Your task to perform on an android device: allow cookies in the chrome app Image 0: 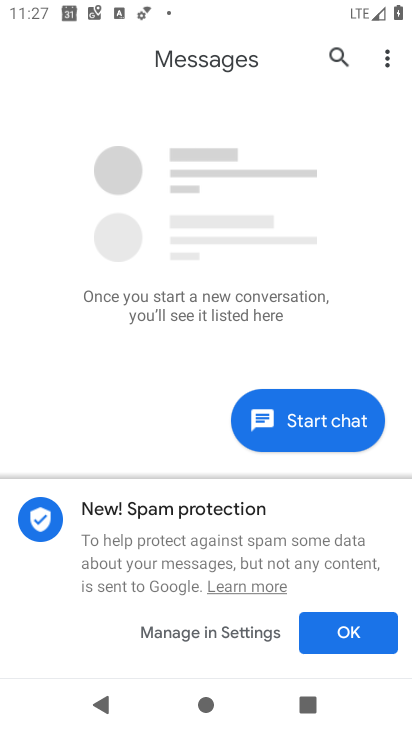
Step 0: press home button
Your task to perform on an android device: allow cookies in the chrome app Image 1: 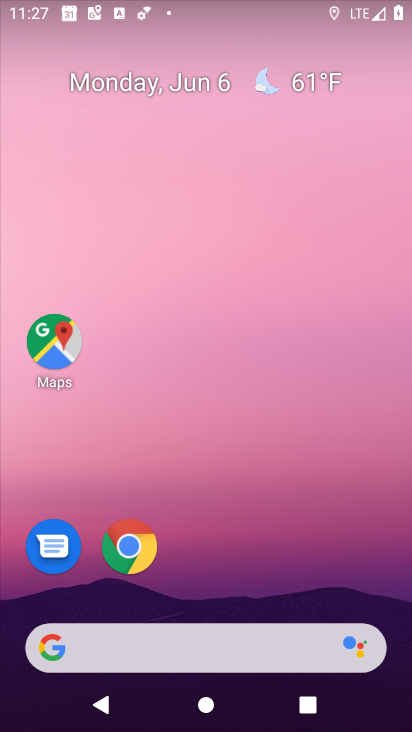
Step 1: click (132, 546)
Your task to perform on an android device: allow cookies in the chrome app Image 2: 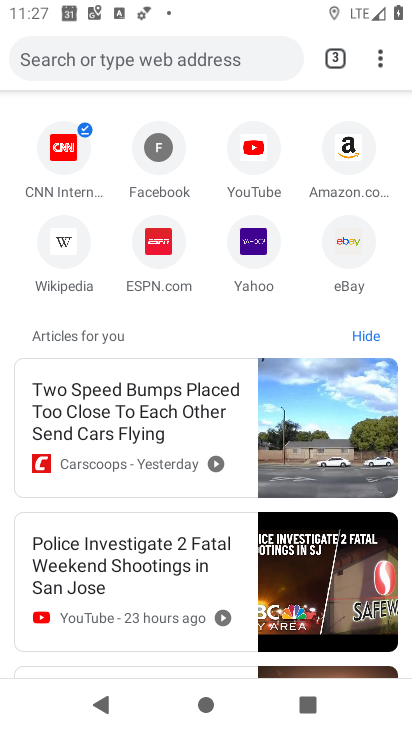
Step 2: click (376, 60)
Your task to perform on an android device: allow cookies in the chrome app Image 3: 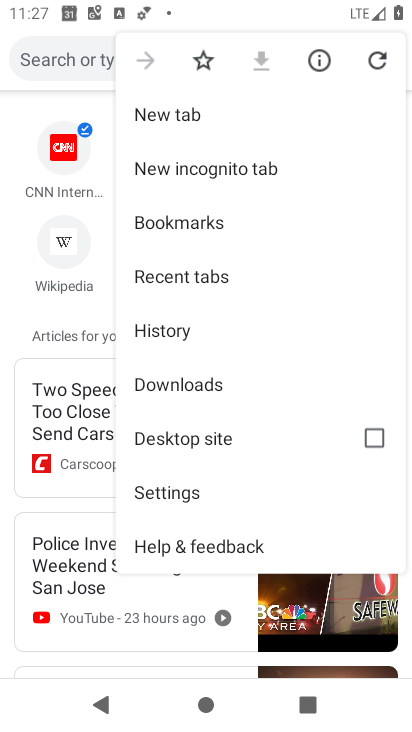
Step 3: click (191, 487)
Your task to perform on an android device: allow cookies in the chrome app Image 4: 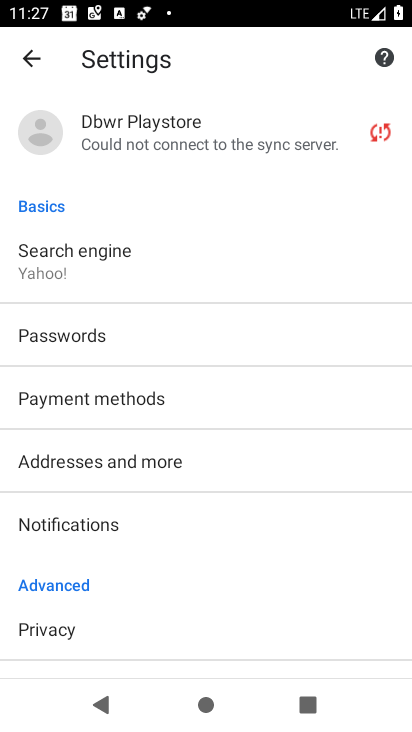
Step 4: drag from (214, 638) to (275, 167)
Your task to perform on an android device: allow cookies in the chrome app Image 5: 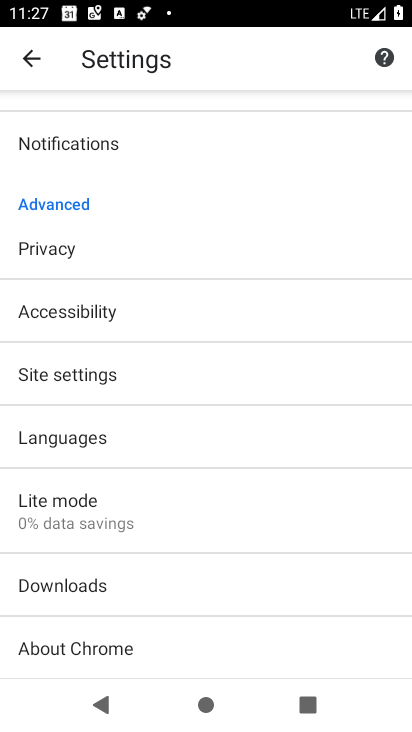
Step 5: click (62, 371)
Your task to perform on an android device: allow cookies in the chrome app Image 6: 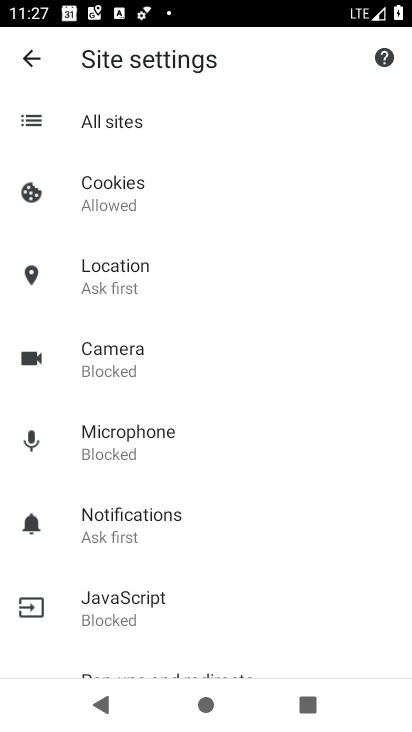
Step 6: click (111, 188)
Your task to perform on an android device: allow cookies in the chrome app Image 7: 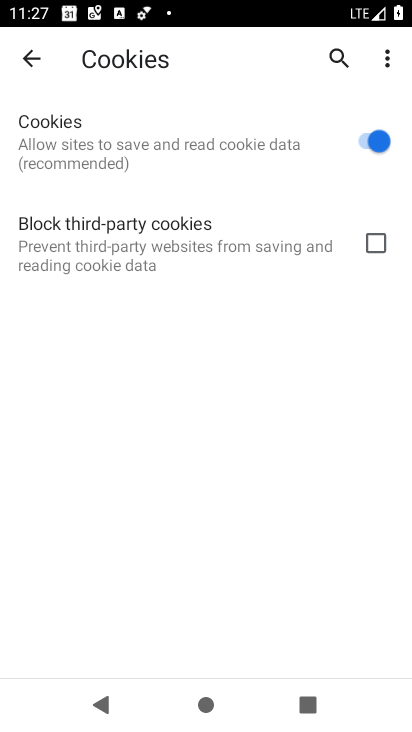
Step 7: task complete